Your task to perform on an android device: Open calendar and show me the second week of next month Image 0: 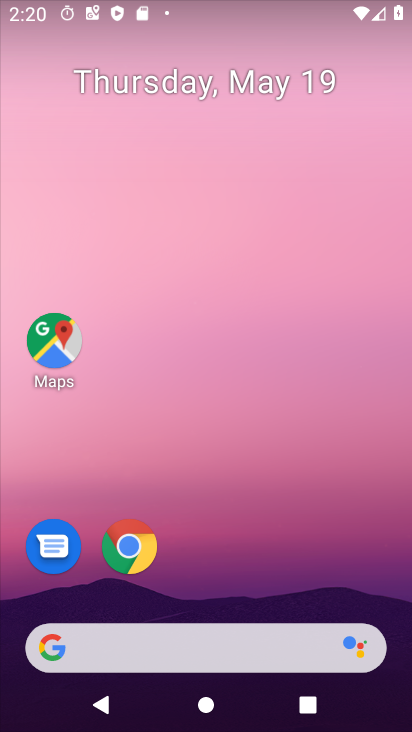
Step 0: click (182, 87)
Your task to perform on an android device: Open calendar and show me the second week of next month Image 1: 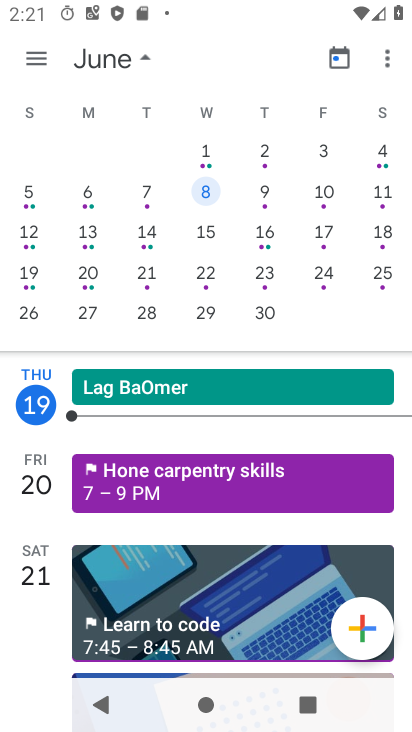
Step 1: click (263, 192)
Your task to perform on an android device: Open calendar and show me the second week of next month Image 2: 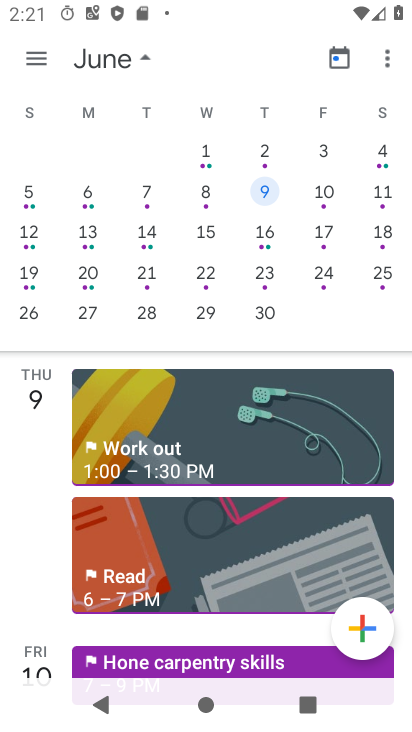
Step 2: task complete